Your task to perform on an android device: turn on bluetooth scan Image 0: 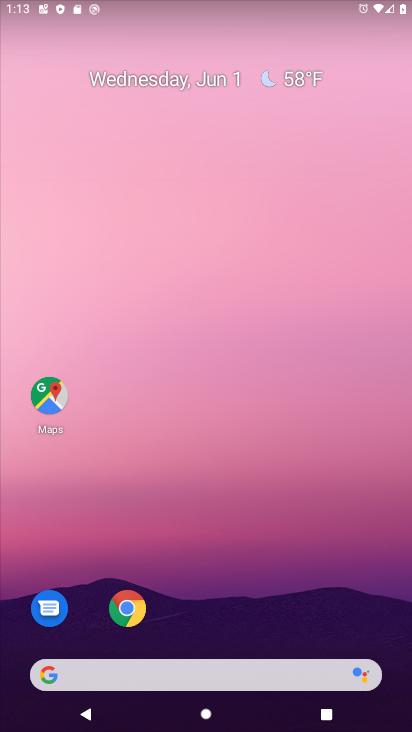
Step 0: drag from (241, 522) to (297, 82)
Your task to perform on an android device: turn on bluetooth scan Image 1: 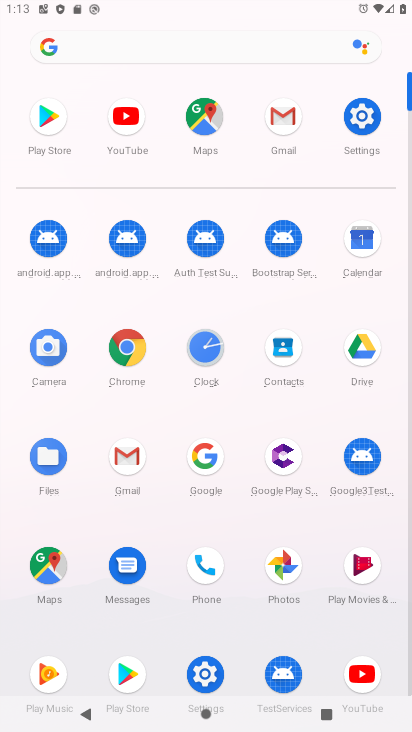
Step 1: click (385, 116)
Your task to perform on an android device: turn on bluetooth scan Image 2: 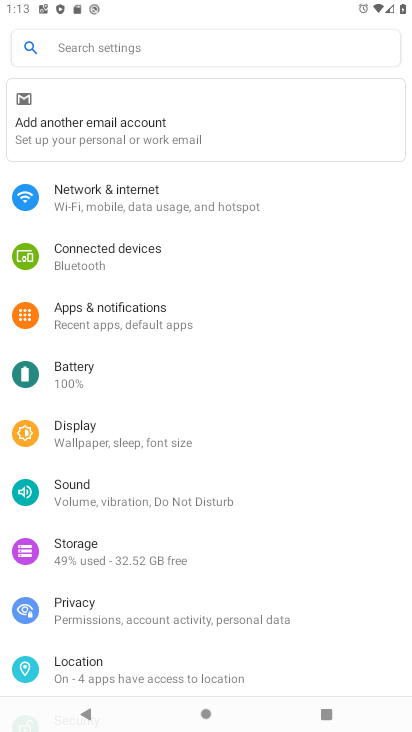
Step 2: click (116, 250)
Your task to perform on an android device: turn on bluetooth scan Image 3: 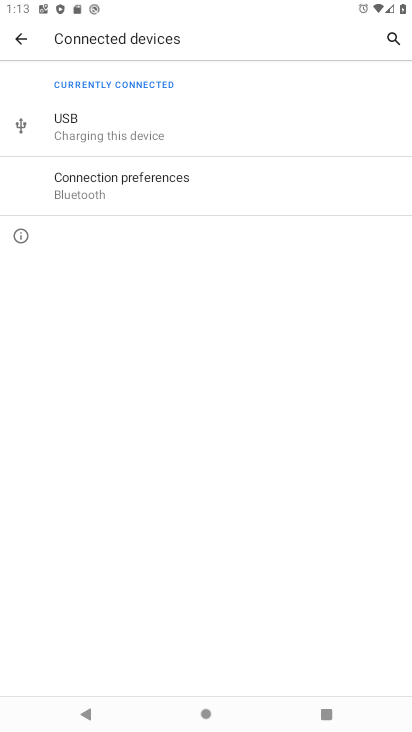
Step 3: click (206, 173)
Your task to perform on an android device: turn on bluetooth scan Image 4: 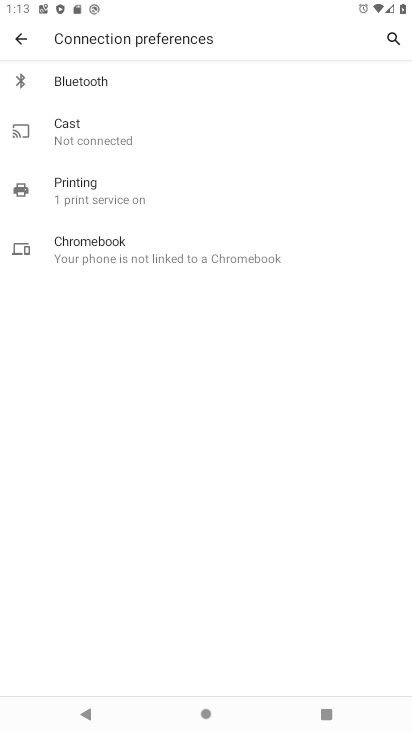
Step 4: click (102, 87)
Your task to perform on an android device: turn on bluetooth scan Image 5: 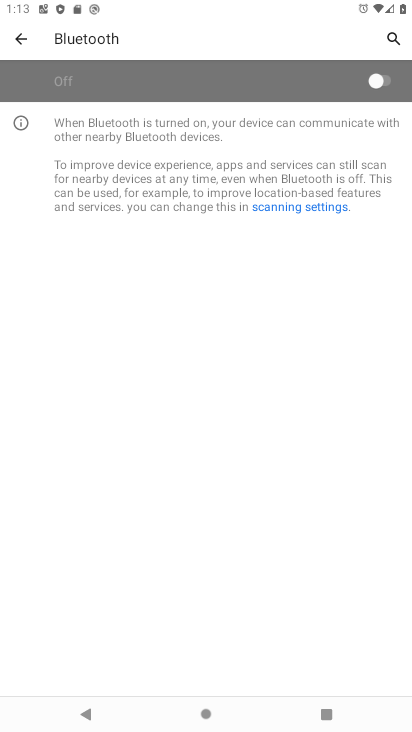
Step 5: click (383, 76)
Your task to perform on an android device: turn on bluetooth scan Image 6: 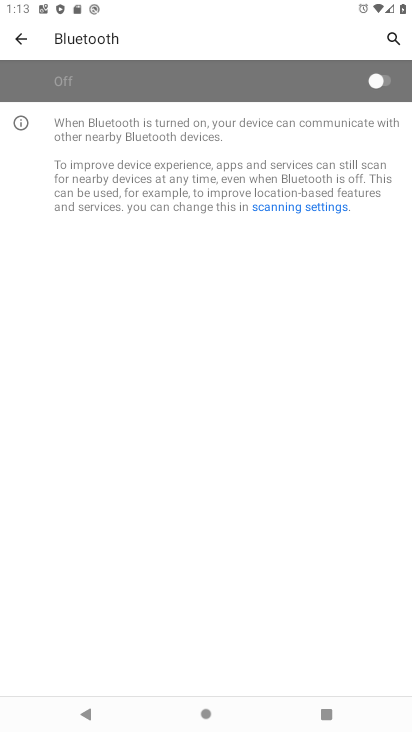
Step 6: click (383, 76)
Your task to perform on an android device: turn on bluetooth scan Image 7: 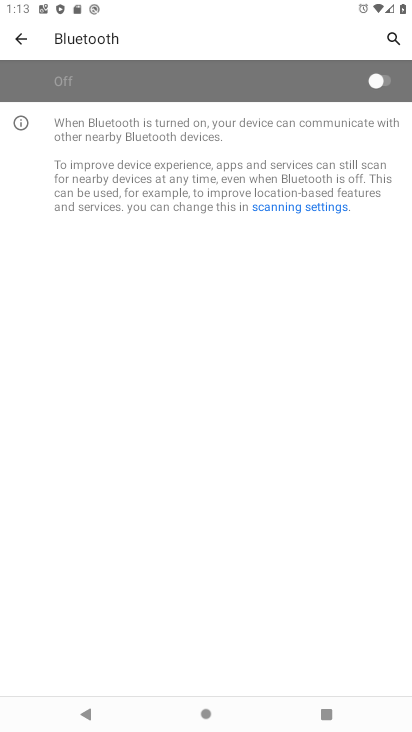
Step 7: click (383, 76)
Your task to perform on an android device: turn on bluetooth scan Image 8: 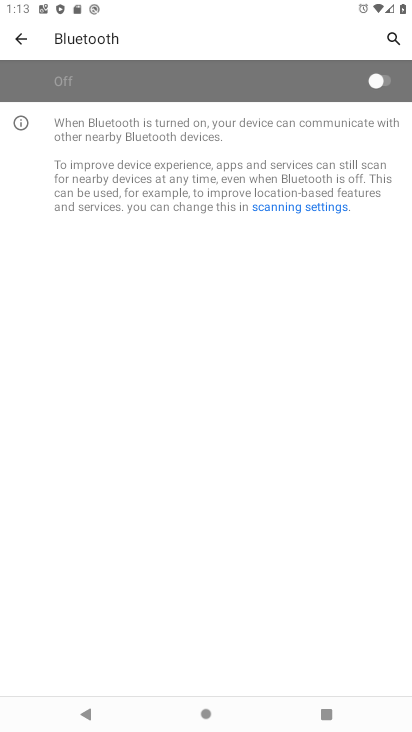
Step 8: click (368, 76)
Your task to perform on an android device: turn on bluetooth scan Image 9: 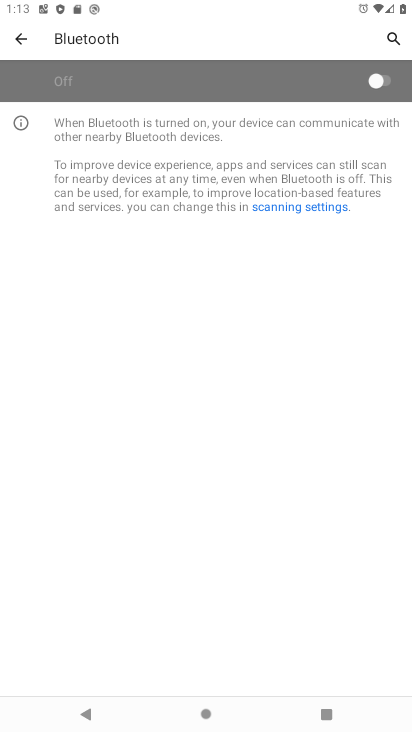
Step 9: click (368, 75)
Your task to perform on an android device: turn on bluetooth scan Image 10: 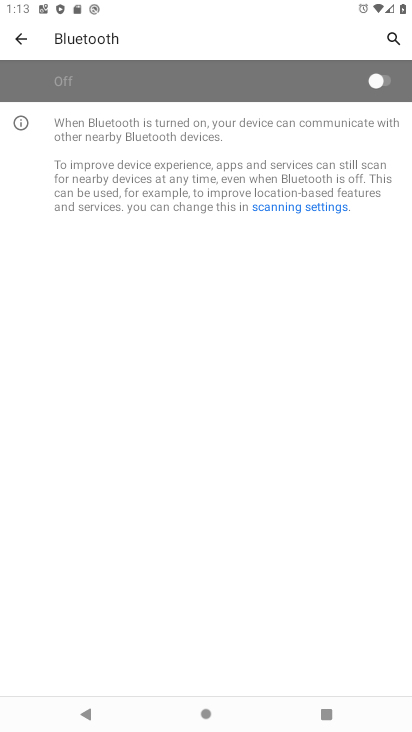
Step 10: click (377, 80)
Your task to perform on an android device: turn on bluetooth scan Image 11: 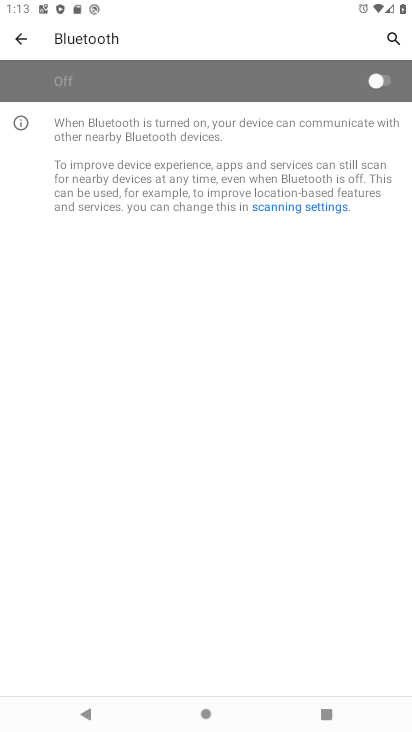
Step 11: click (377, 80)
Your task to perform on an android device: turn on bluetooth scan Image 12: 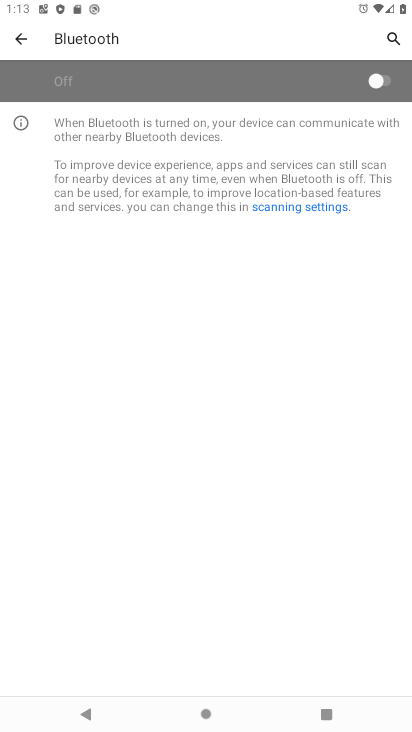
Step 12: click (377, 78)
Your task to perform on an android device: turn on bluetooth scan Image 13: 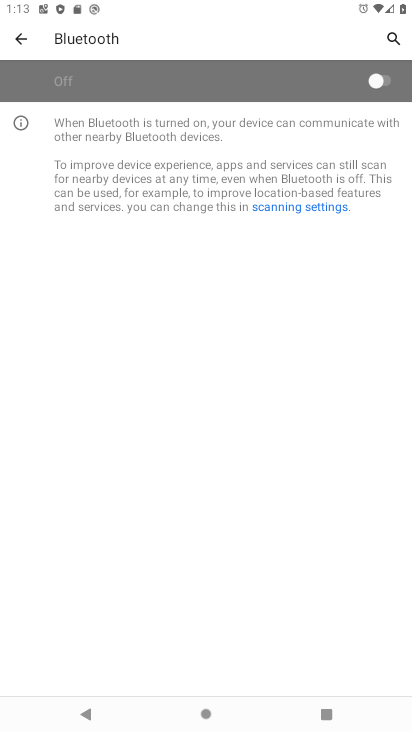
Step 13: click (377, 78)
Your task to perform on an android device: turn on bluetooth scan Image 14: 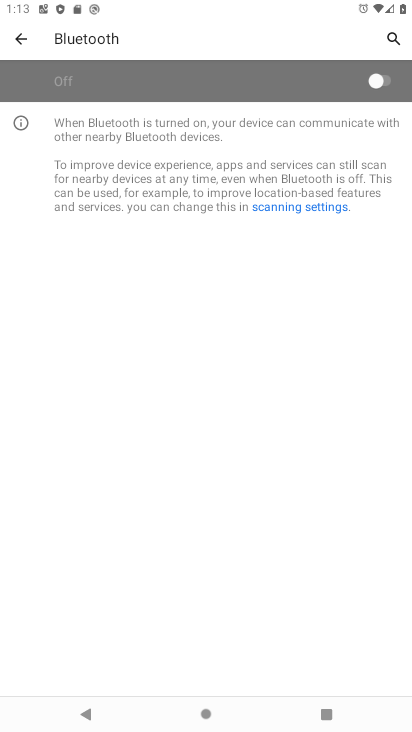
Step 14: click (377, 78)
Your task to perform on an android device: turn on bluetooth scan Image 15: 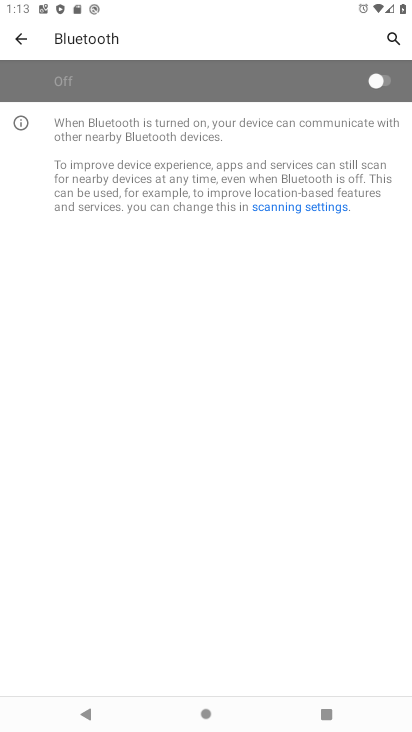
Step 15: click (377, 78)
Your task to perform on an android device: turn on bluetooth scan Image 16: 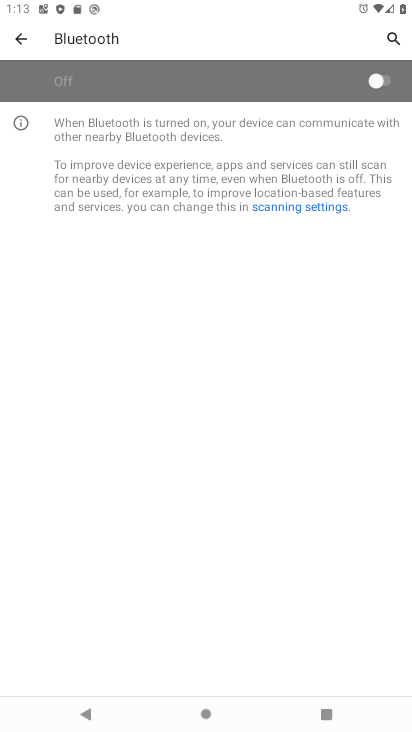
Step 16: click (377, 78)
Your task to perform on an android device: turn on bluetooth scan Image 17: 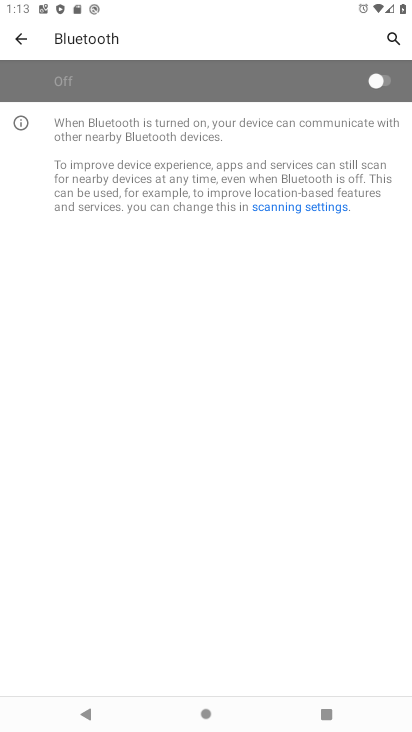
Step 17: click (376, 81)
Your task to perform on an android device: turn on bluetooth scan Image 18: 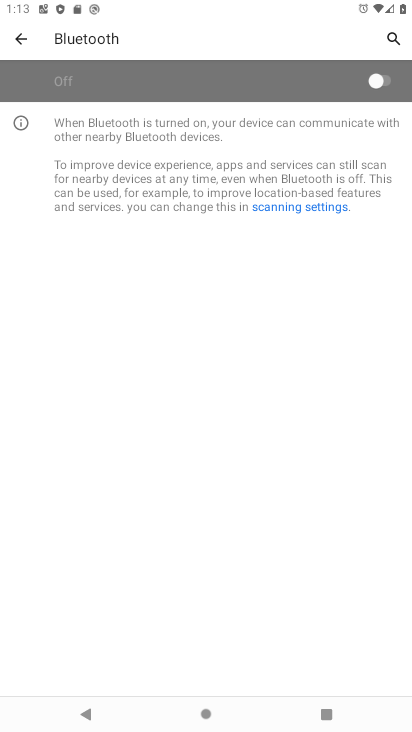
Step 18: click (376, 80)
Your task to perform on an android device: turn on bluetooth scan Image 19: 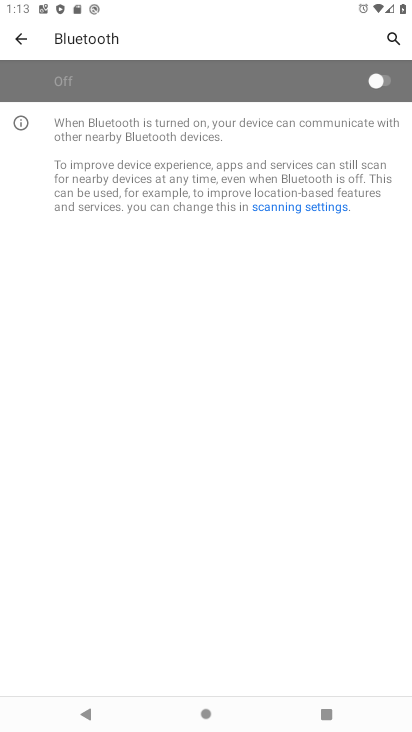
Step 19: click (376, 80)
Your task to perform on an android device: turn on bluetooth scan Image 20: 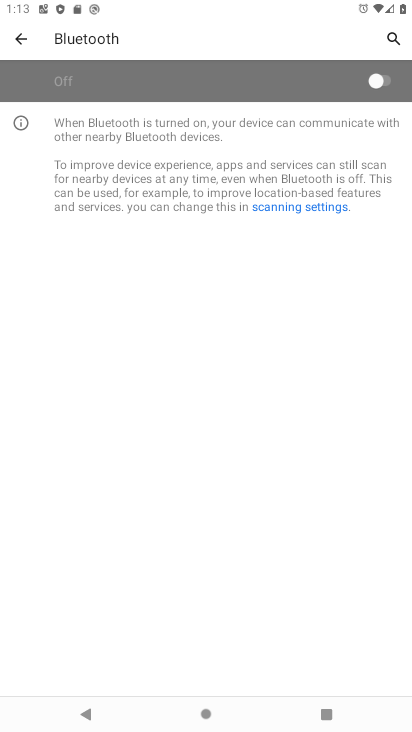
Step 20: click (376, 80)
Your task to perform on an android device: turn on bluetooth scan Image 21: 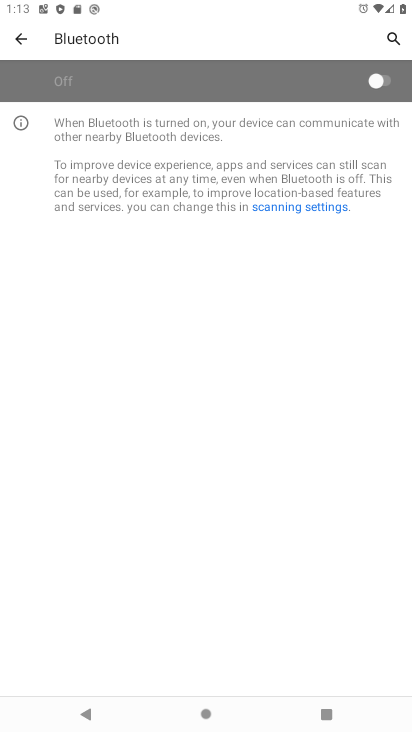
Step 21: click (376, 80)
Your task to perform on an android device: turn on bluetooth scan Image 22: 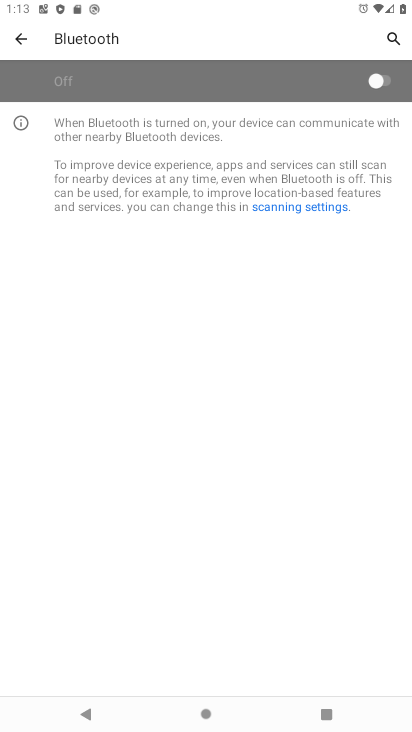
Step 22: click (376, 80)
Your task to perform on an android device: turn on bluetooth scan Image 23: 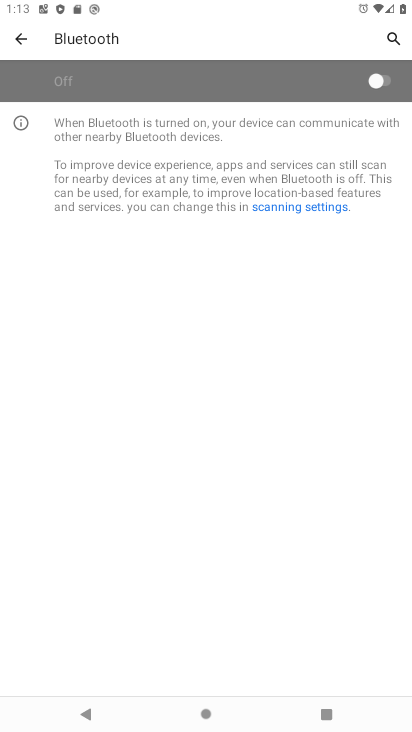
Step 23: click (376, 80)
Your task to perform on an android device: turn on bluetooth scan Image 24: 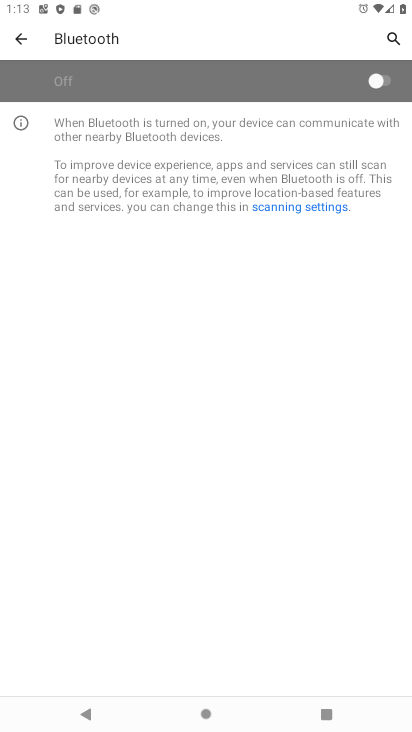
Step 24: task complete